Your task to perform on an android device: delete location history Image 0: 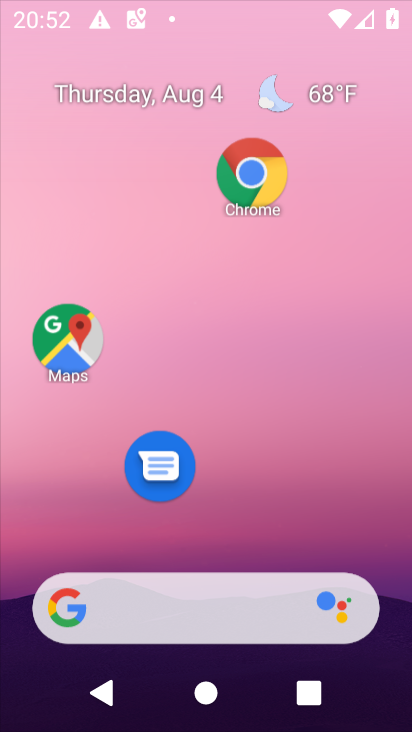
Step 0: press home button
Your task to perform on an android device: delete location history Image 1: 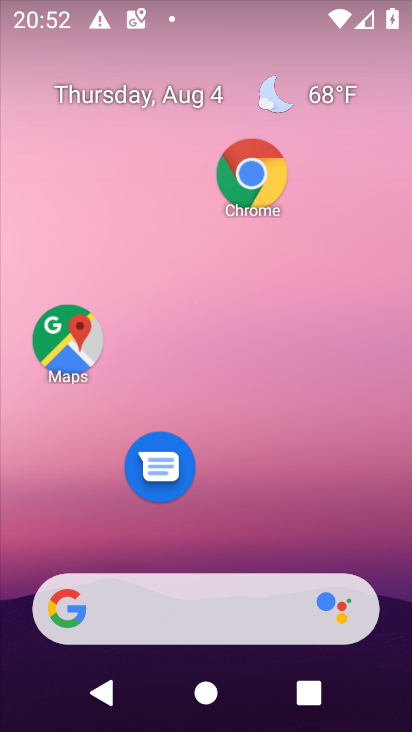
Step 1: drag from (252, 510) to (105, 0)
Your task to perform on an android device: delete location history Image 2: 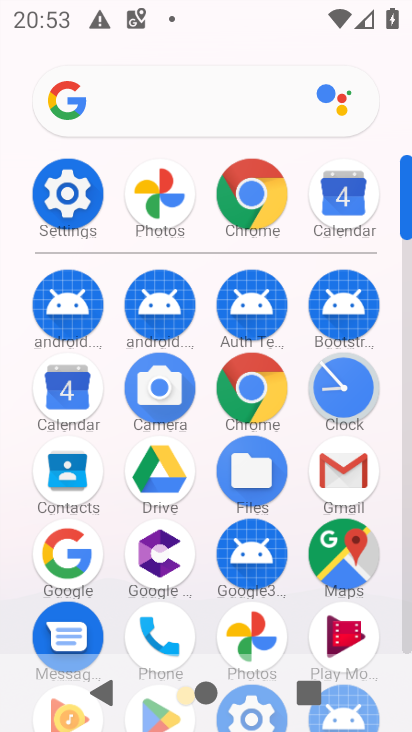
Step 2: click (337, 551)
Your task to perform on an android device: delete location history Image 3: 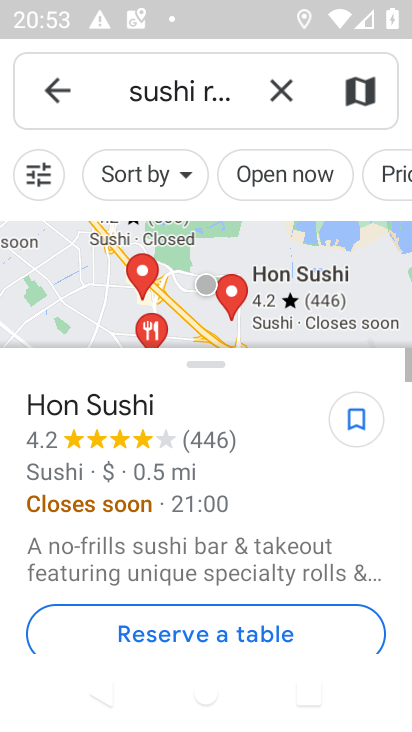
Step 3: click (60, 84)
Your task to perform on an android device: delete location history Image 4: 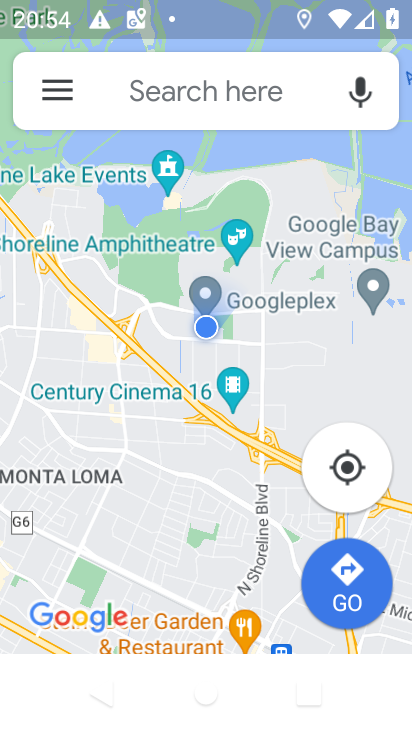
Step 4: click (61, 84)
Your task to perform on an android device: delete location history Image 5: 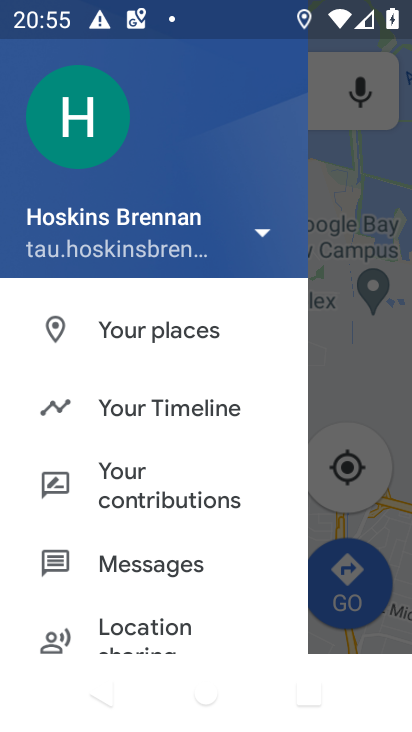
Step 5: drag from (151, 534) to (110, 129)
Your task to perform on an android device: delete location history Image 6: 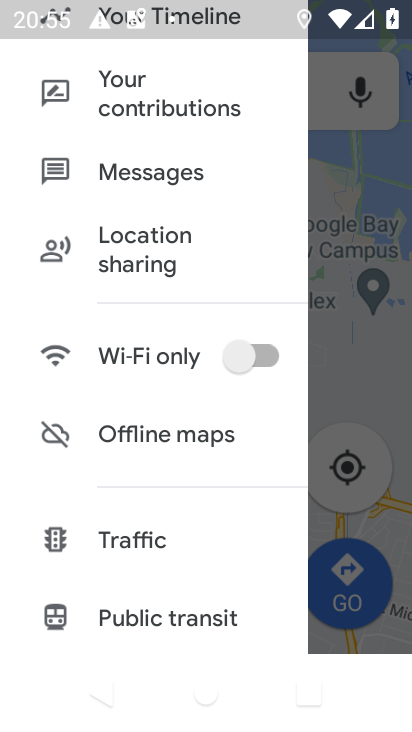
Step 6: drag from (105, 595) to (117, 680)
Your task to perform on an android device: delete location history Image 7: 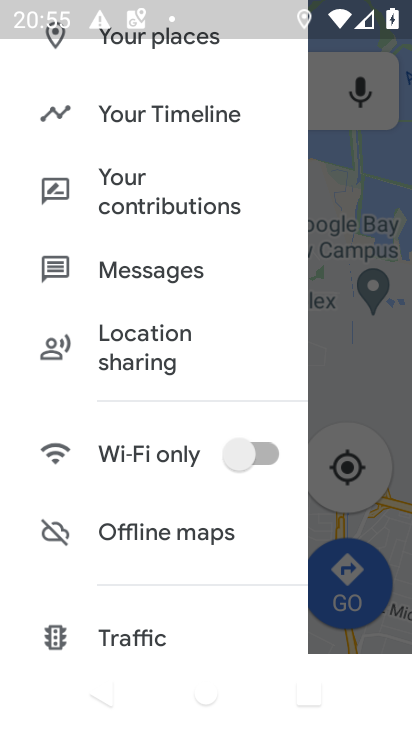
Step 7: click (122, 112)
Your task to perform on an android device: delete location history Image 8: 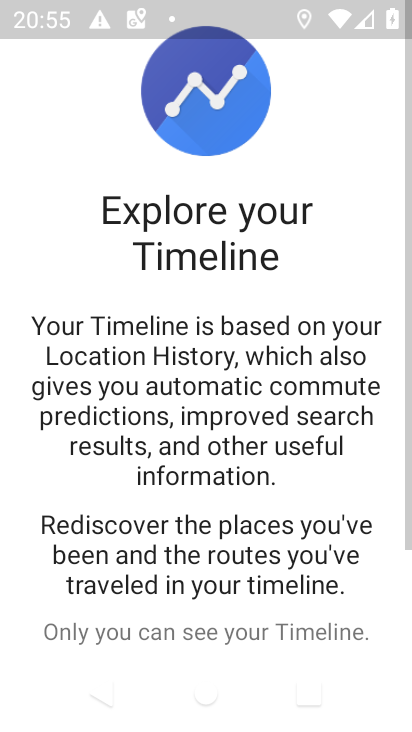
Step 8: drag from (156, 535) to (149, 9)
Your task to perform on an android device: delete location history Image 9: 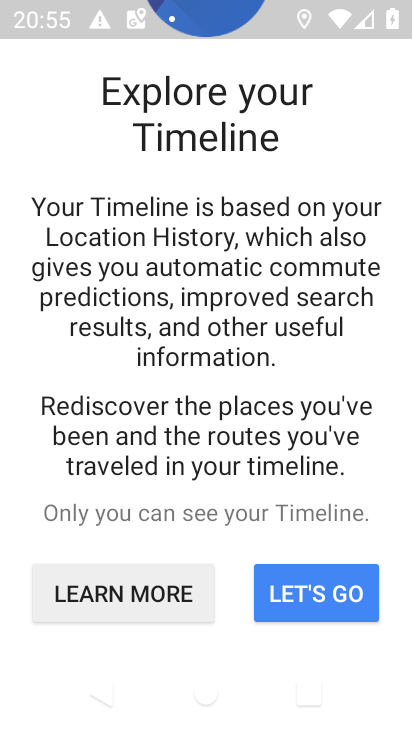
Step 9: click (329, 614)
Your task to perform on an android device: delete location history Image 10: 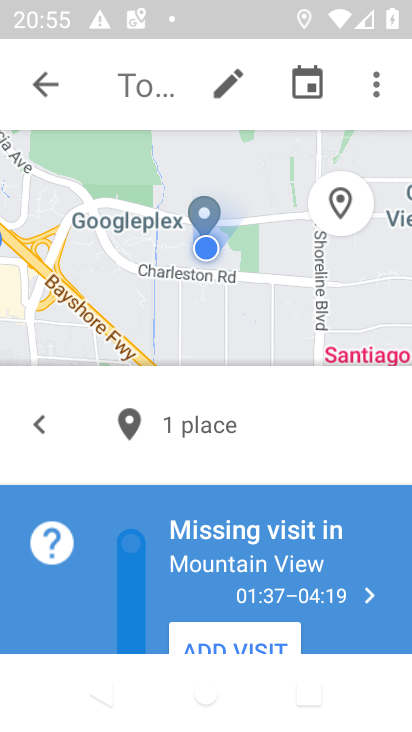
Step 10: click (370, 80)
Your task to perform on an android device: delete location history Image 11: 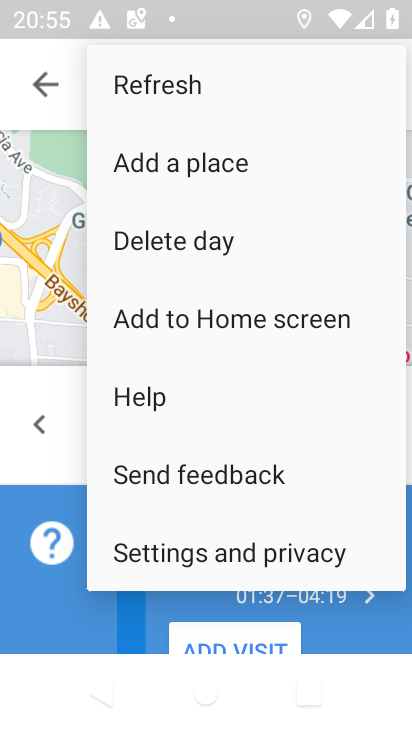
Step 11: click (170, 542)
Your task to perform on an android device: delete location history Image 12: 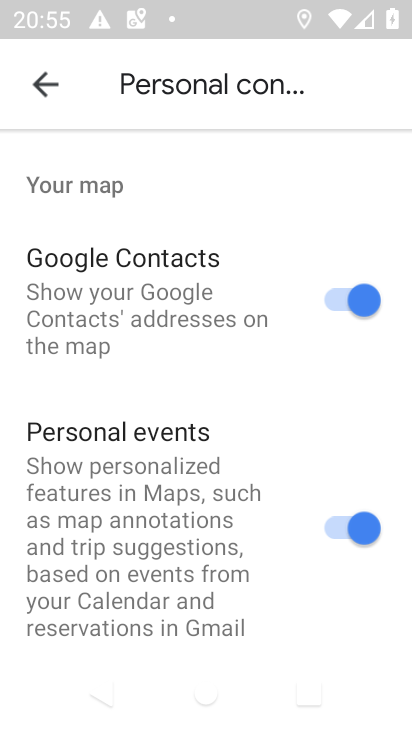
Step 12: drag from (186, 562) to (196, 307)
Your task to perform on an android device: delete location history Image 13: 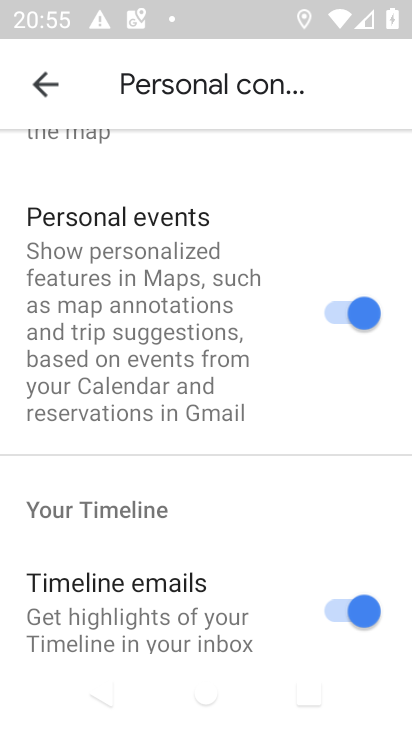
Step 13: drag from (150, 677) to (152, 290)
Your task to perform on an android device: delete location history Image 14: 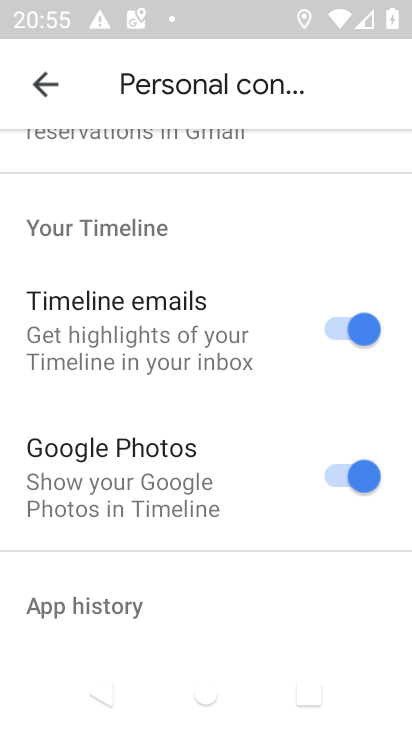
Step 14: drag from (179, 546) to (153, 234)
Your task to perform on an android device: delete location history Image 15: 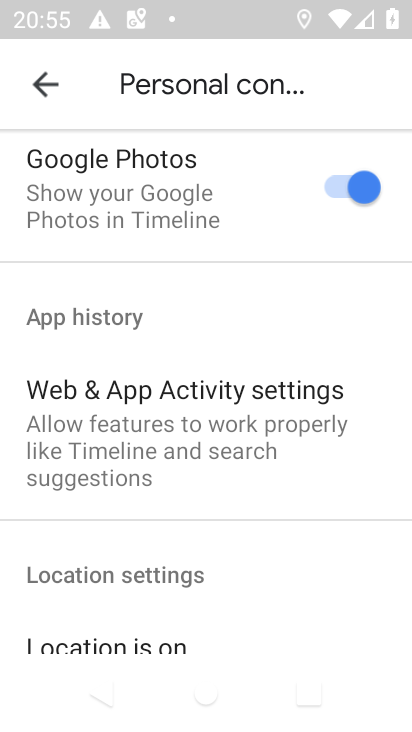
Step 15: drag from (131, 610) to (104, 178)
Your task to perform on an android device: delete location history Image 16: 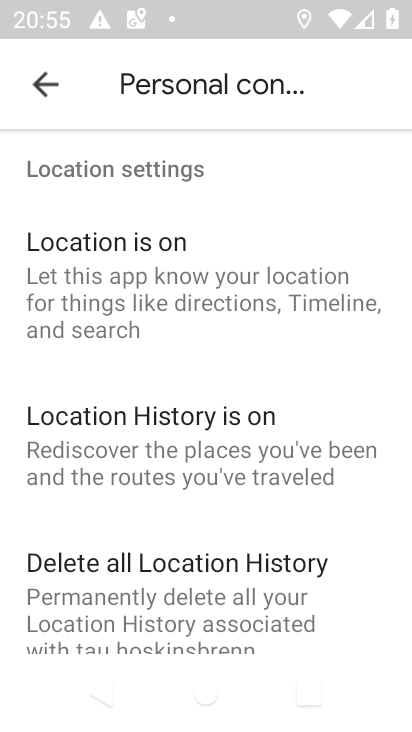
Step 16: drag from (98, 547) to (102, 223)
Your task to perform on an android device: delete location history Image 17: 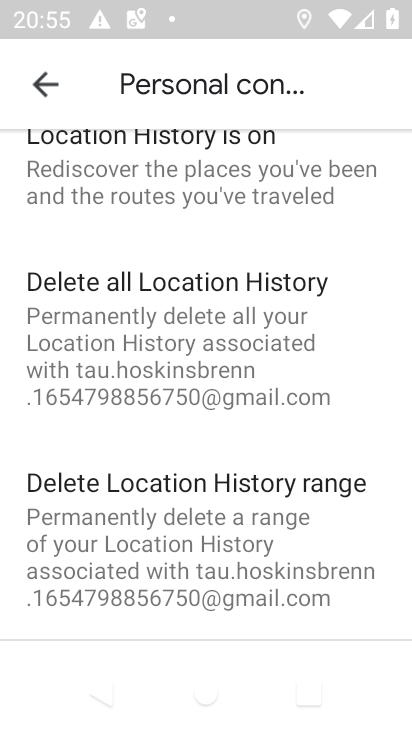
Step 17: click (163, 362)
Your task to perform on an android device: delete location history Image 18: 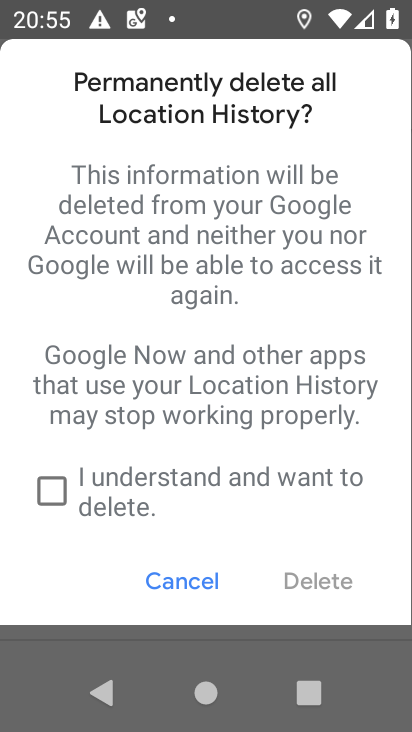
Step 18: click (107, 481)
Your task to perform on an android device: delete location history Image 19: 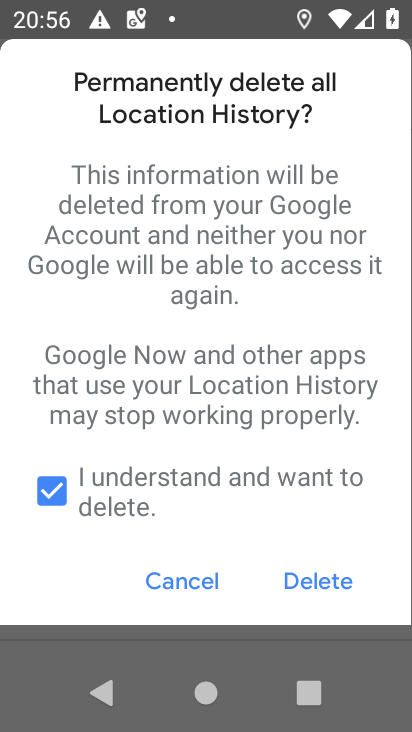
Step 19: click (320, 592)
Your task to perform on an android device: delete location history Image 20: 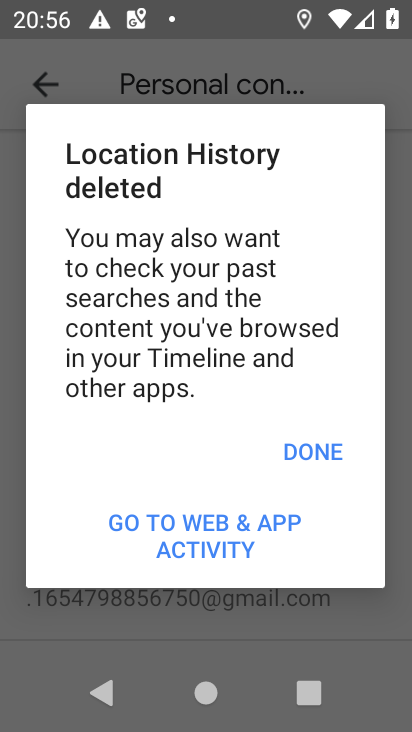
Step 20: click (306, 464)
Your task to perform on an android device: delete location history Image 21: 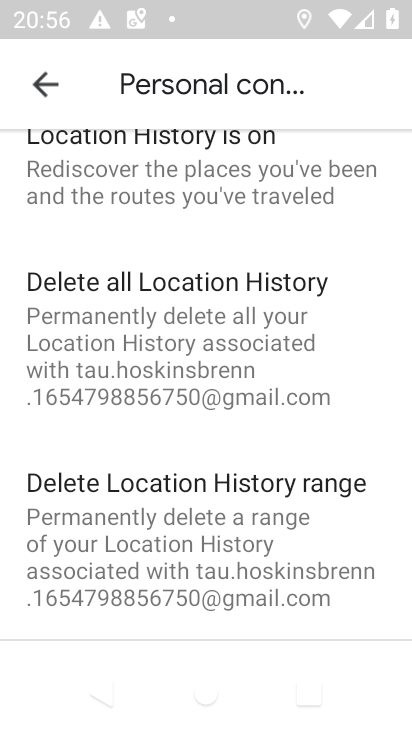
Step 21: task complete